Your task to perform on an android device: toggle priority inbox in the gmail app Image 0: 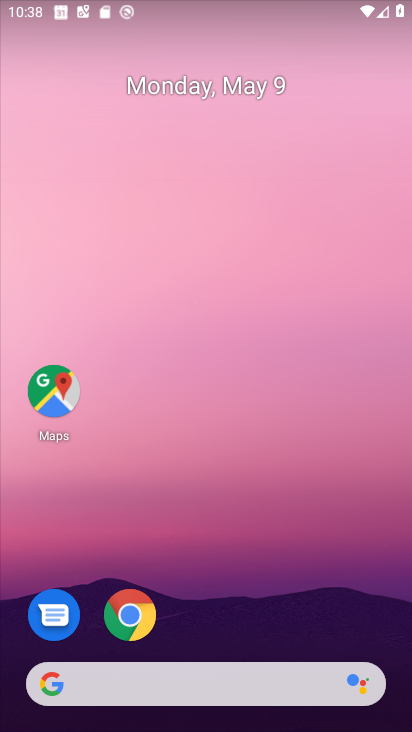
Step 0: drag from (267, 717) to (148, 135)
Your task to perform on an android device: toggle priority inbox in the gmail app Image 1: 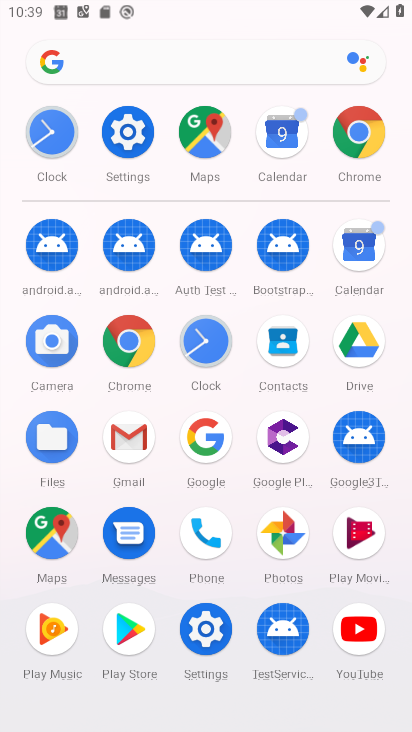
Step 1: click (132, 428)
Your task to perform on an android device: toggle priority inbox in the gmail app Image 2: 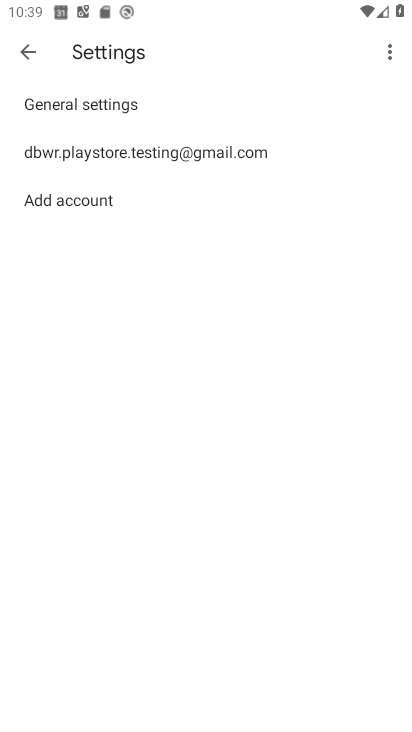
Step 2: click (70, 145)
Your task to perform on an android device: toggle priority inbox in the gmail app Image 3: 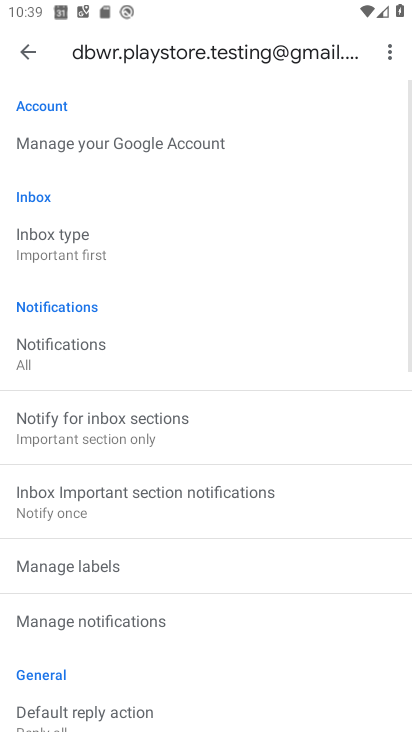
Step 3: click (101, 245)
Your task to perform on an android device: toggle priority inbox in the gmail app Image 4: 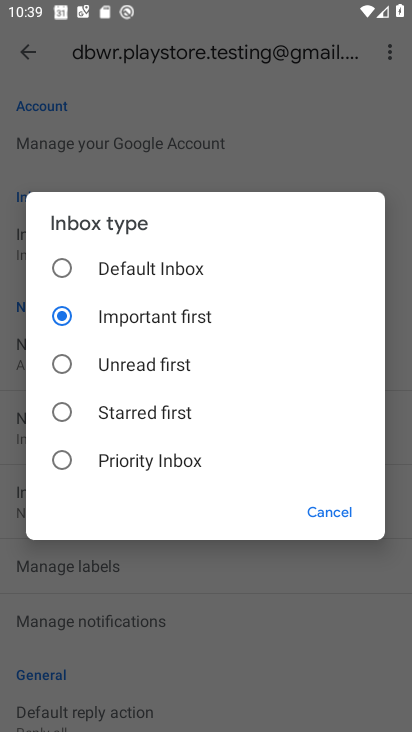
Step 4: click (162, 459)
Your task to perform on an android device: toggle priority inbox in the gmail app Image 5: 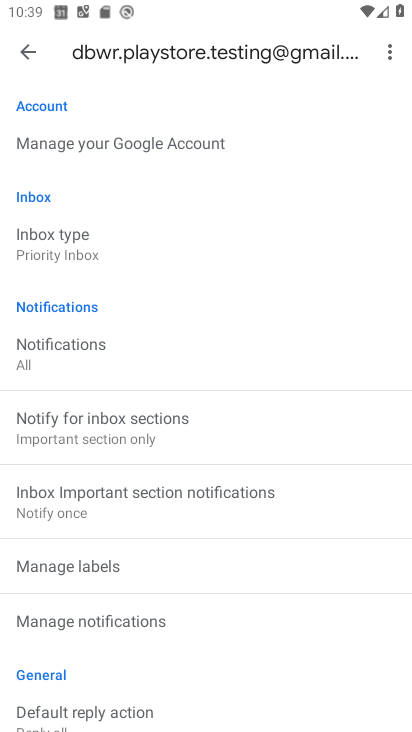
Step 5: click (160, 248)
Your task to perform on an android device: toggle priority inbox in the gmail app Image 6: 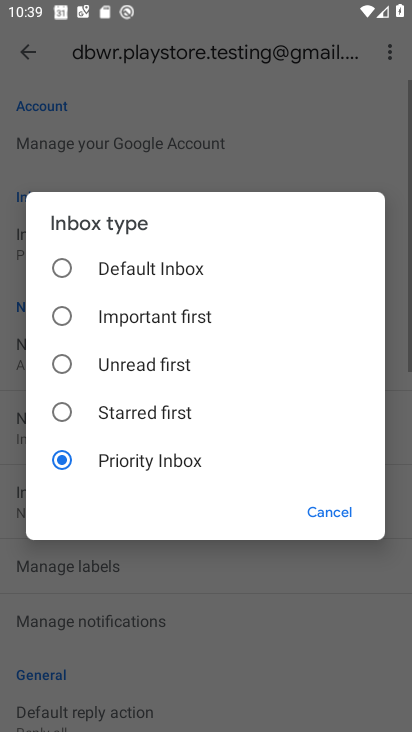
Step 6: task complete